Your task to perform on an android device: turn on notifications settings in the gmail app Image 0: 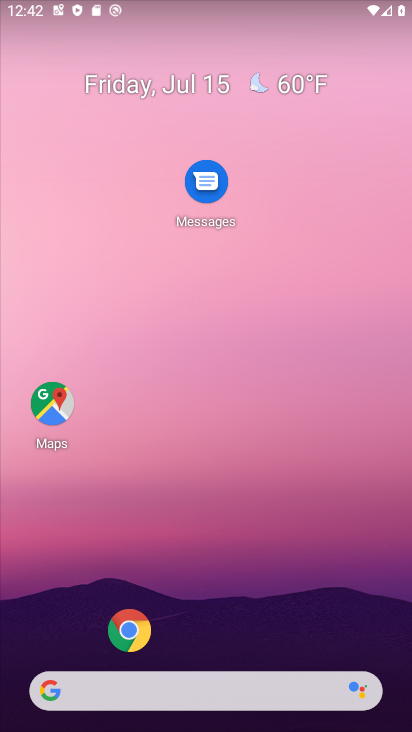
Step 0: drag from (99, 501) to (257, 38)
Your task to perform on an android device: turn on notifications settings in the gmail app Image 1: 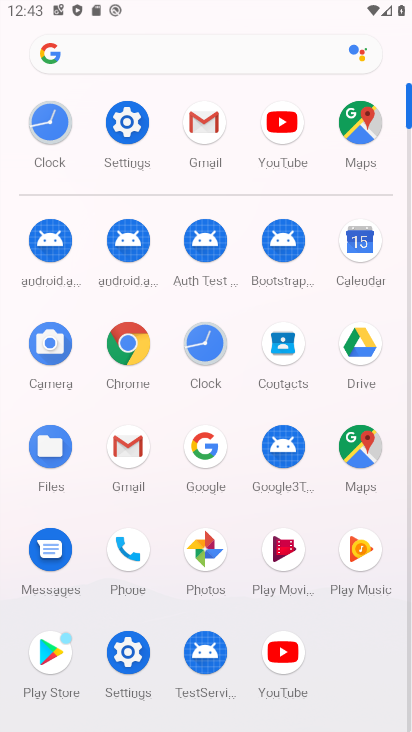
Step 1: click (109, 448)
Your task to perform on an android device: turn on notifications settings in the gmail app Image 2: 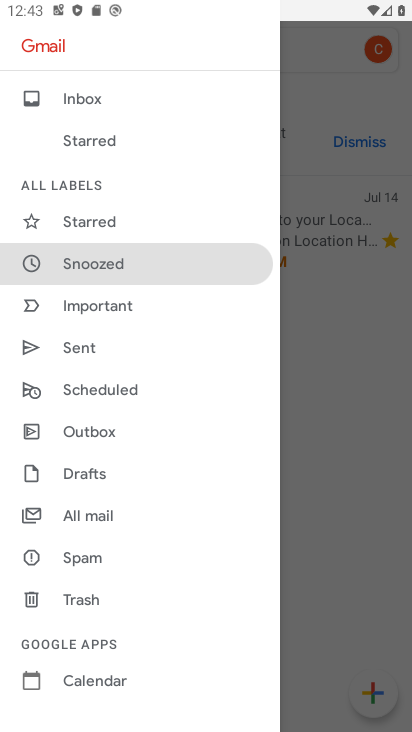
Step 2: drag from (163, 668) to (258, 276)
Your task to perform on an android device: turn on notifications settings in the gmail app Image 3: 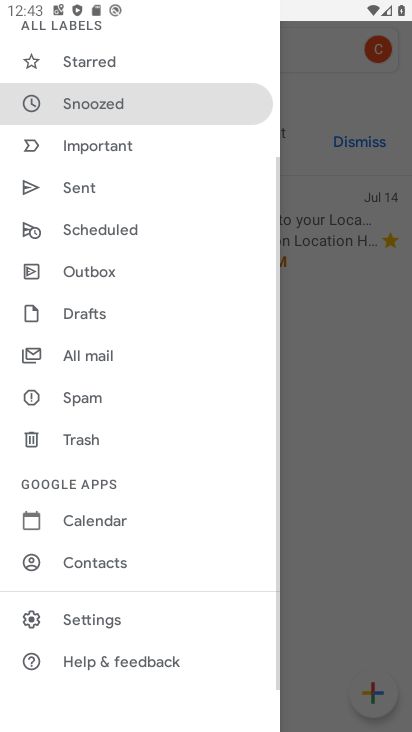
Step 3: click (101, 621)
Your task to perform on an android device: turn on notifications settings in the gmail app Image 4: 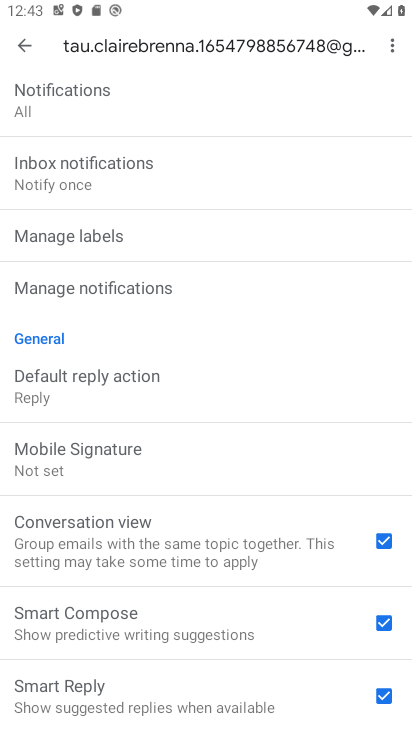
Step 4: click (18, 44)
Your task to perform on an android device: turn on notifications settings in the gmail app Image 5: 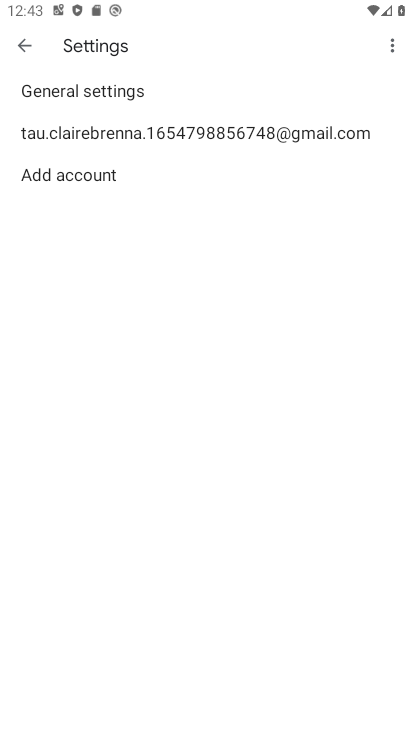
Step 5: click (78, 96)
Your task to perform on an android device: turn on notifications settings in the gmail app Image 6: 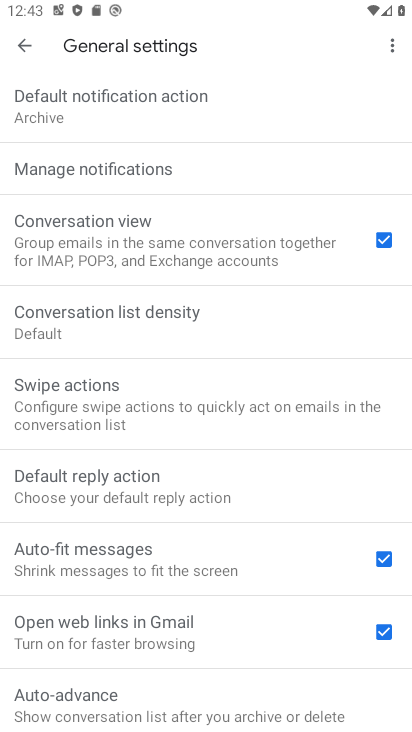
Step 6: click (109, 167)
Your task to perform on an android device: turn on notifications settings in the gmail app Image 7: 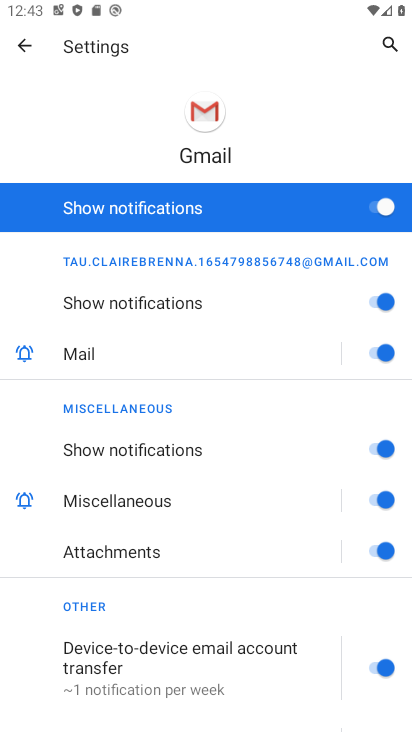
Step 7: task complete